Your task to perform on an android device: Go to Maps Image 0: 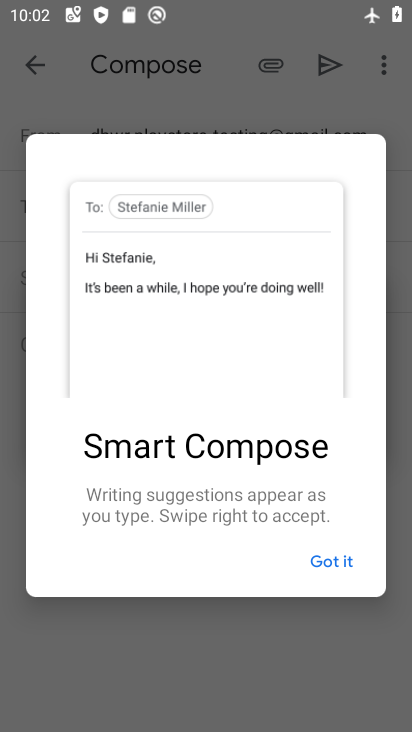
Step 0: press home button
Your task to perform on an android device: Go to Maps Image 1: 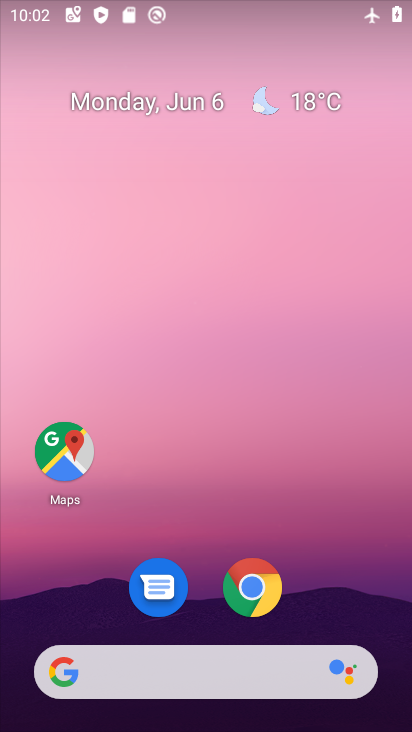
Step 1: click (54, 454)
Your task to perform on an android device: Go to Maps Image 2: 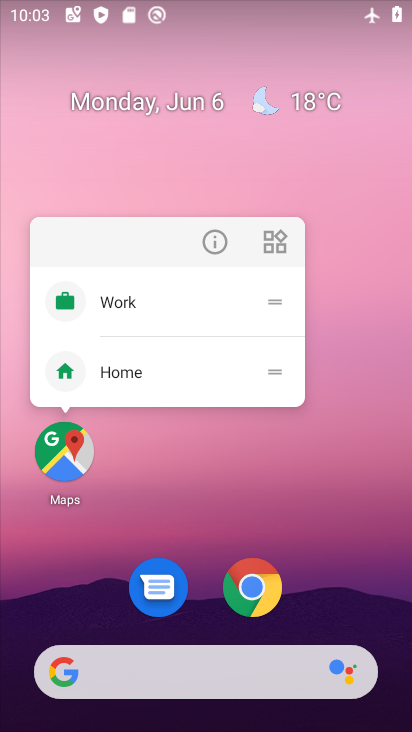
Step 2: click (55, 454)
Your task to perform on an android device: Go to Maps Image 3: 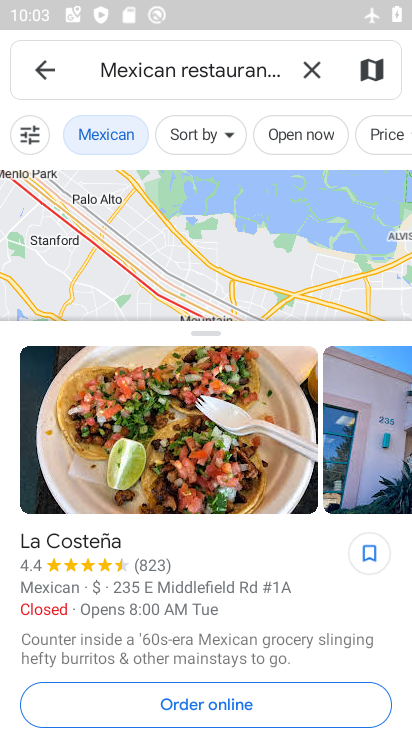
Step 3: task complete